Your task to perform on an android device: turn notification dots off Image 0: 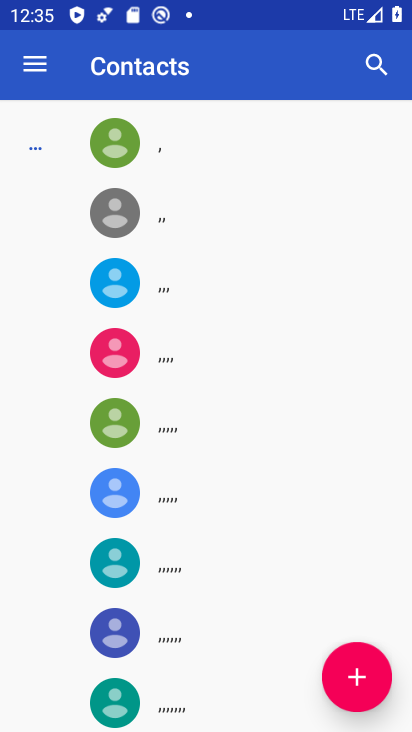
Step 0: press home button
Your task to perform on an android device: turn notification dots off Image 1: 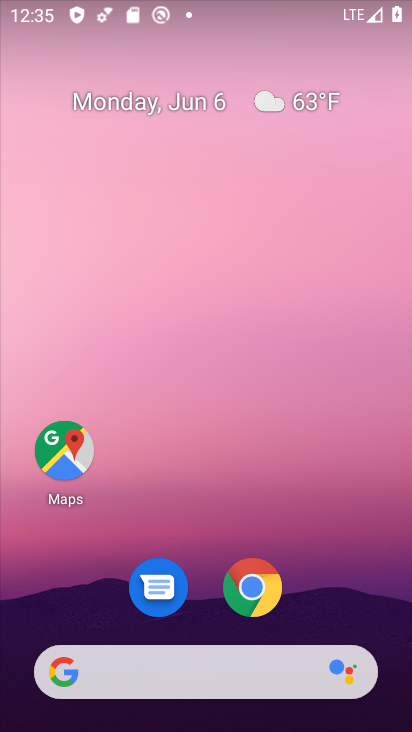
Step 1: drag from (376, 612) to (276, 228)
Your task to perform on an android device: turn notification dots off Image 2: 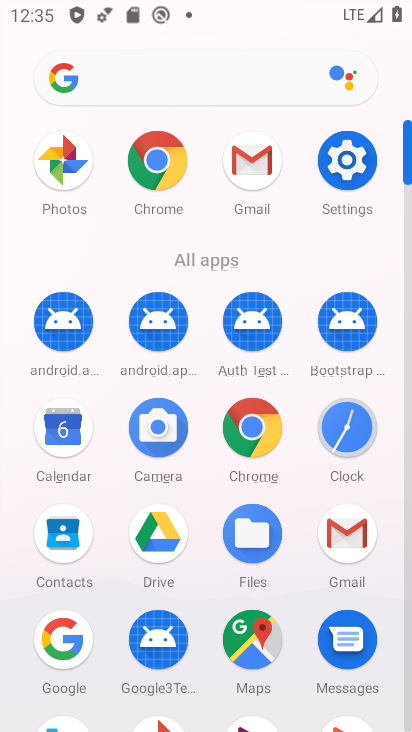
Step 2: click (361, 185)
Your task to perform on an android device: turn notification dots off Image 3: 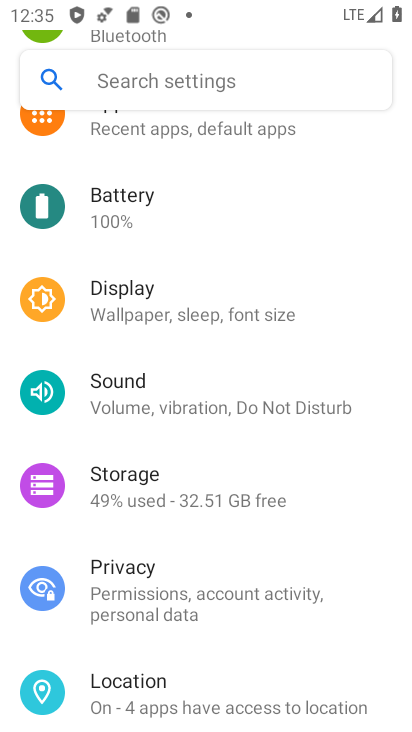
Step 3: drag from (258, 196) to (268, 426)
Your task to perform on an android device: turn notification dots off Image 4: 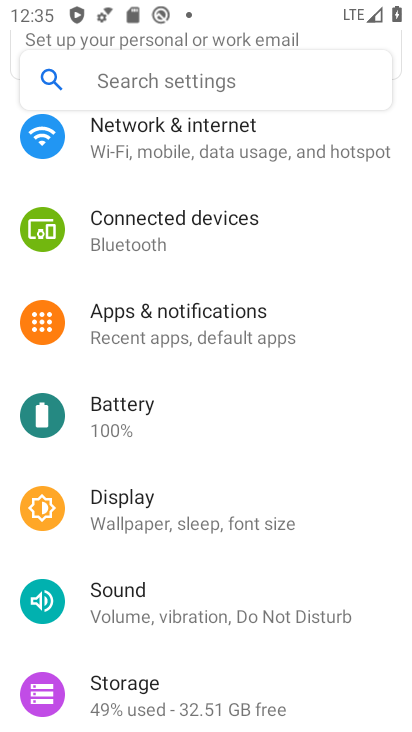
Step 4: click (257, 316)
Your task to perform on an android device: turn notification dots off Image 5: 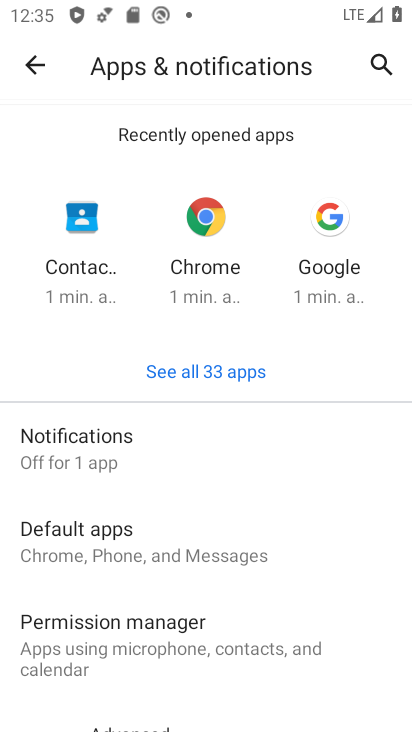
Step 5: click (244, 455)
Your task to perform on an android device: turn notification dots off Image 6: 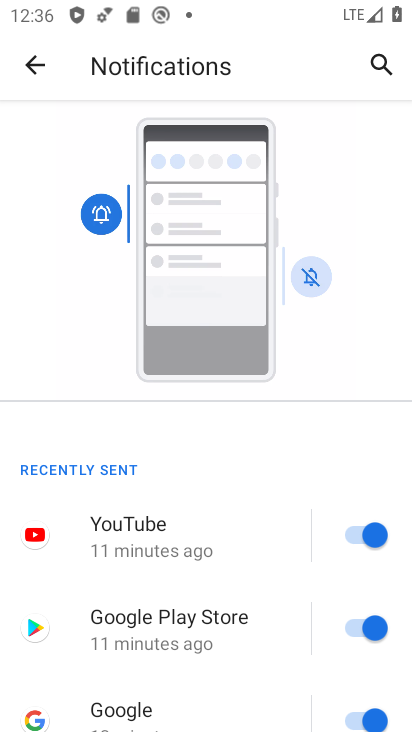
Step 6: drag from (274, 633) to (241, 368)
Your task to perform on an android device: turn notification dots off Image 7: 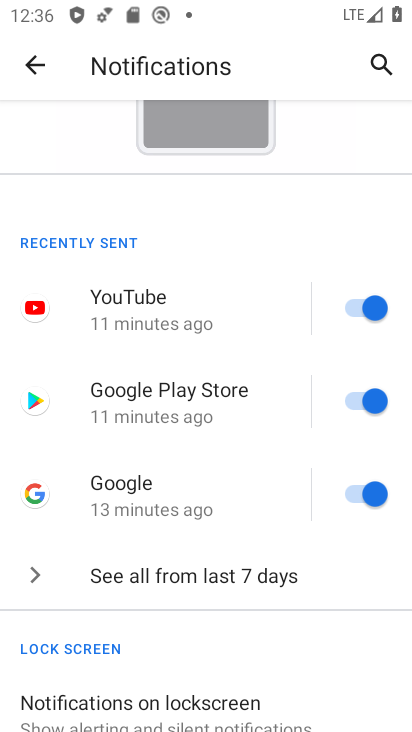
Step 7: drag from (280, 642) to (242, 265)
Your task to perform on an android device: turn notification dots off Image 8: 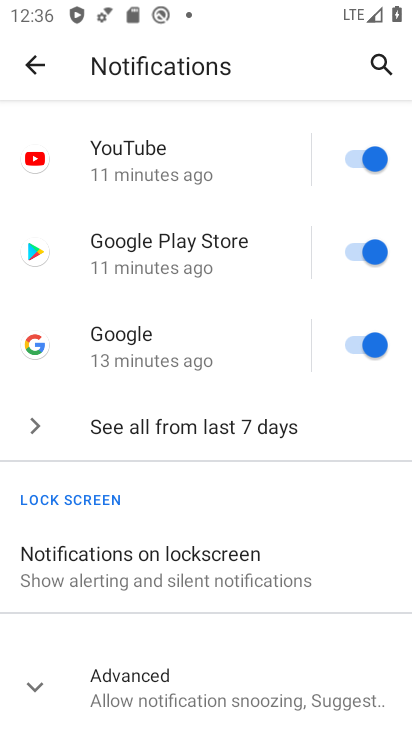
Step 8: click (272, 675)
Your task to perform on an android device: turn notification dots off Image 9: 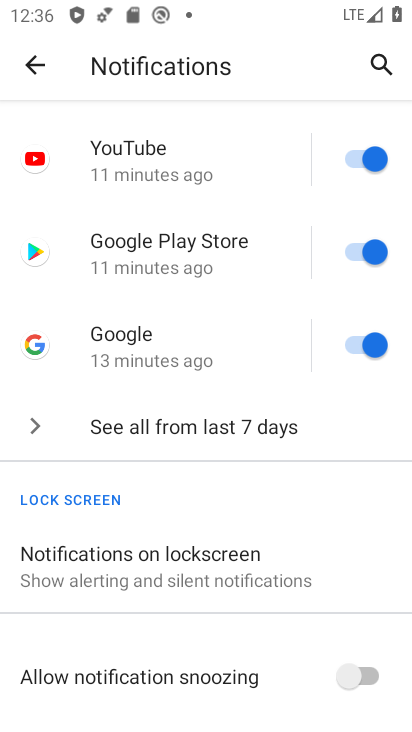
Step 9: drag from (264, 671) to (215, 316)
Your task to perform on an android device: turn notification dots off Image 10: 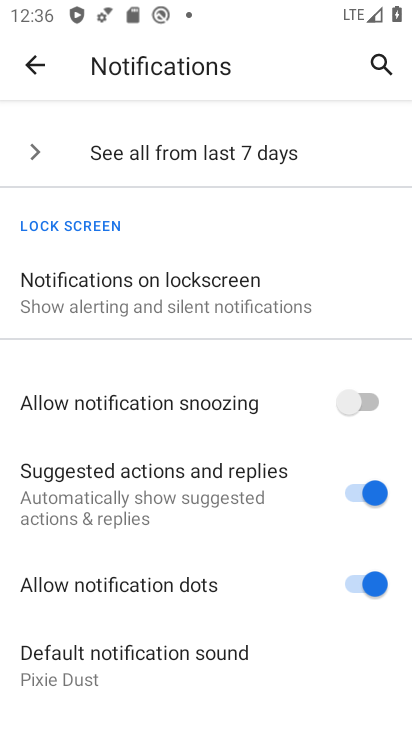
Step 10: click (365, 583)
Your task to perform on an android device: turn notification dots off Image 11: 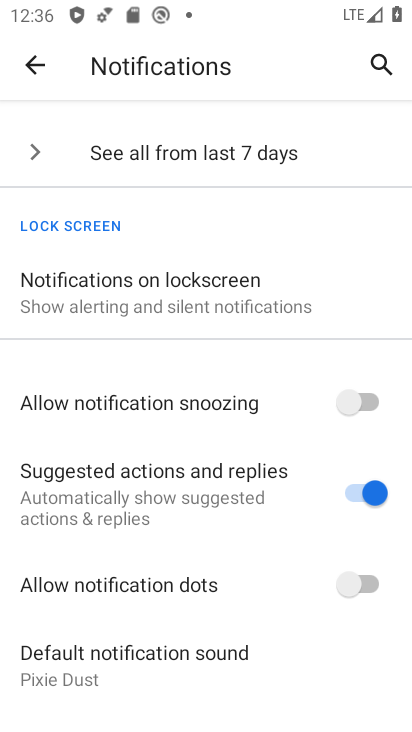
Step 11: task complete